Your task to perform on an android device: manage bookmarks in the chrome app Image 0: 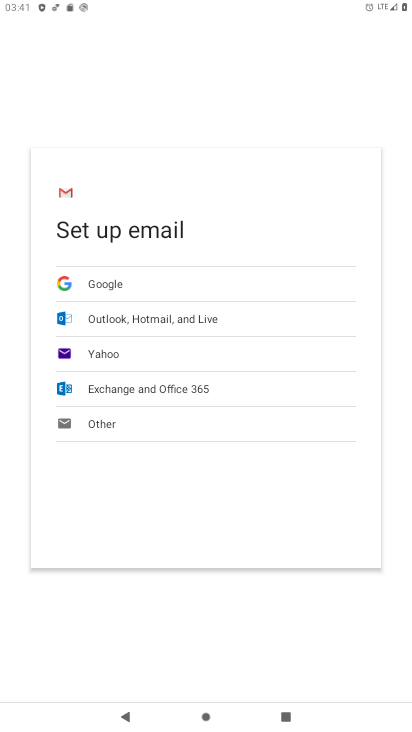
Step 0: press home button
Your task to perform on an android device: manage bookmarks in the chrome app Image 1: 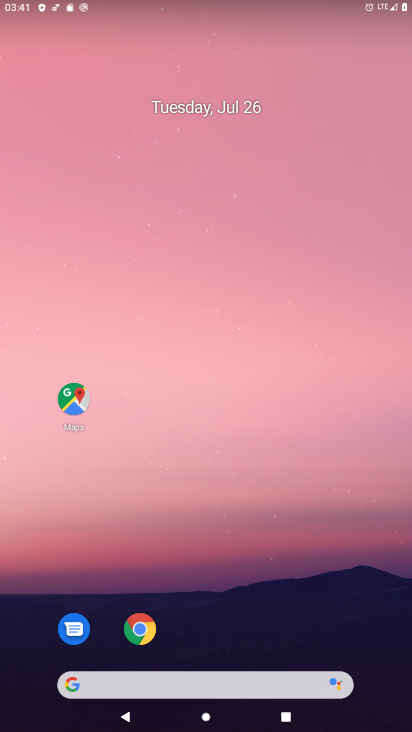
Step 1: drag from (306, 588) to (349, 154)
Your task to perform on an android device: manage bookmarks in the chrome app Image 2: 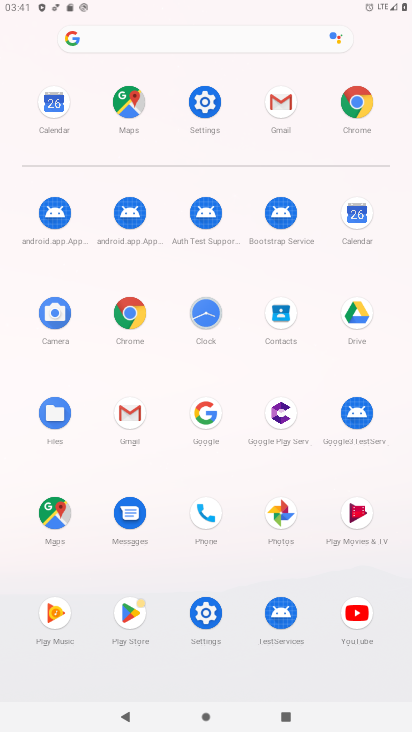
Step 2: click (127, 310)
Your task to perform on an android device: manage bookmarks in the chrome app Image 3: 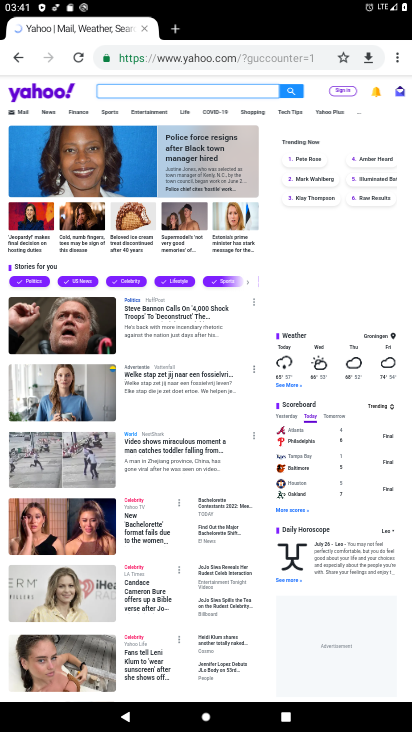
Step 3: click (396, 59)
Your task to perform on an android device: manage bookmarks in the chrome app Image 4: 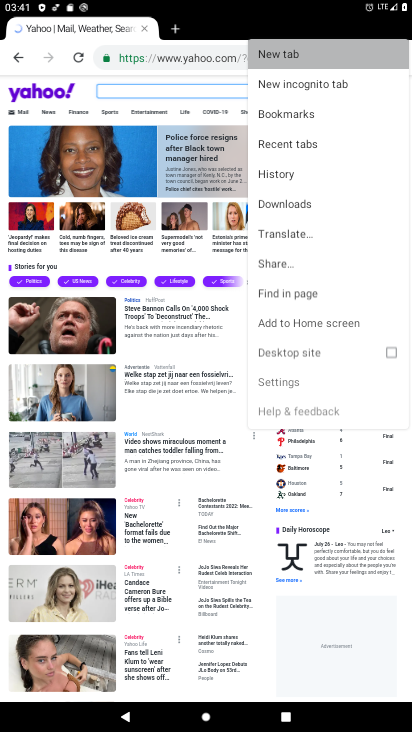
Step 4: click (396, 59)
Your task to perform on an android device: manage bookmarks in the chrome app Image 5: 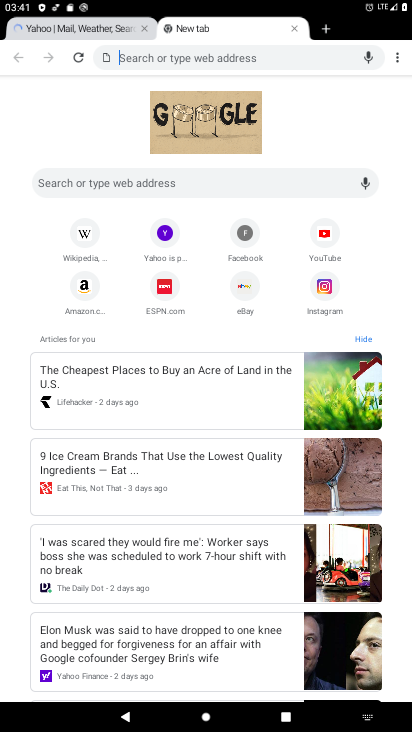
Step 5: drag from (400, 57) to (312, 116)
Your task to perform on an android device: manage bookmarks in the chrome app Image 6: 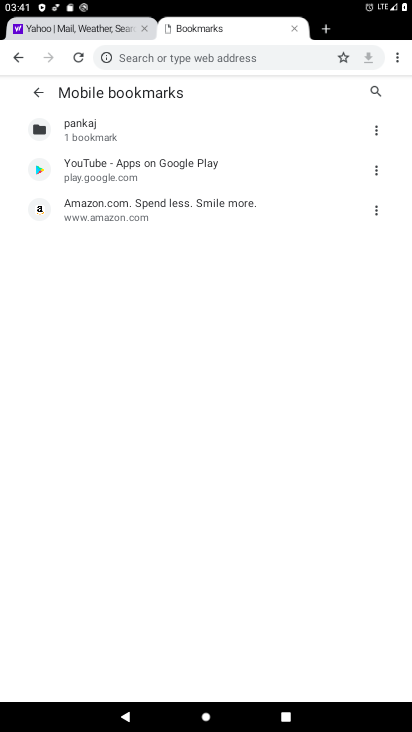
Step 6: click (375, 119)
Your task to perform on an android device: manage bookmarks in the chrome app Image 7: 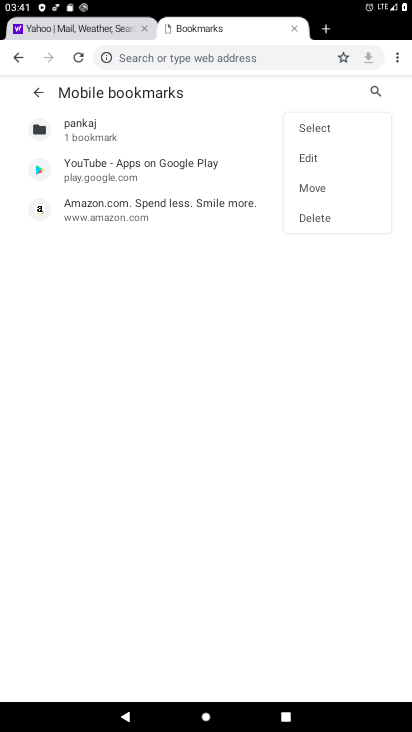
Step 7: click (301, 154)
Your task to perform on an android device: manage bookmarks in the chrome app Image 8: 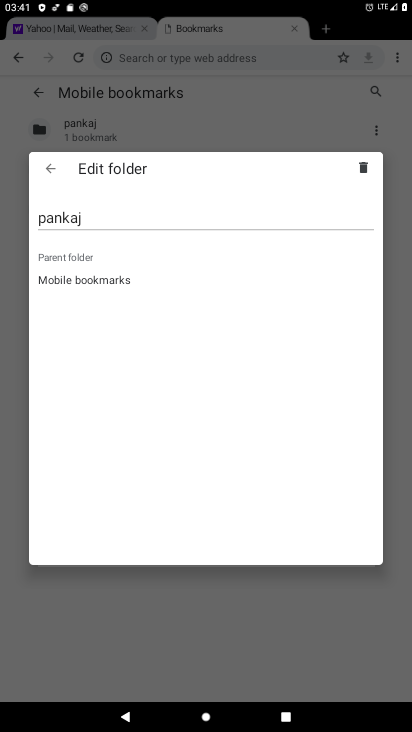
Step 8: click (237, 212)
Your task to perform on an android device: manage bookmarks in the chrome app Image 9: 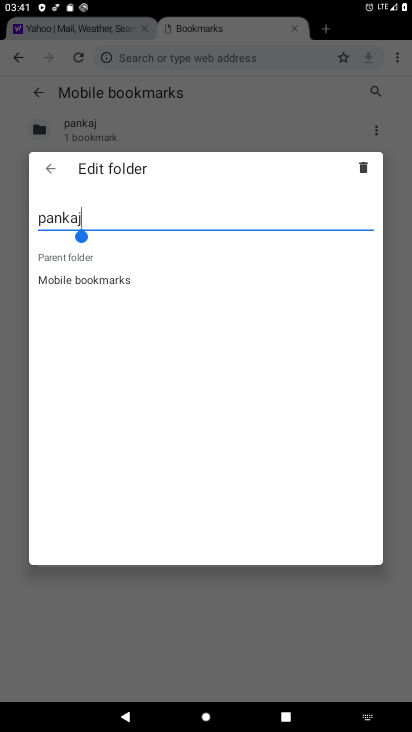
Step 9: click (207, 219)
Your task to perform on an android device: manage bookmarks in the chrome app Image 10: 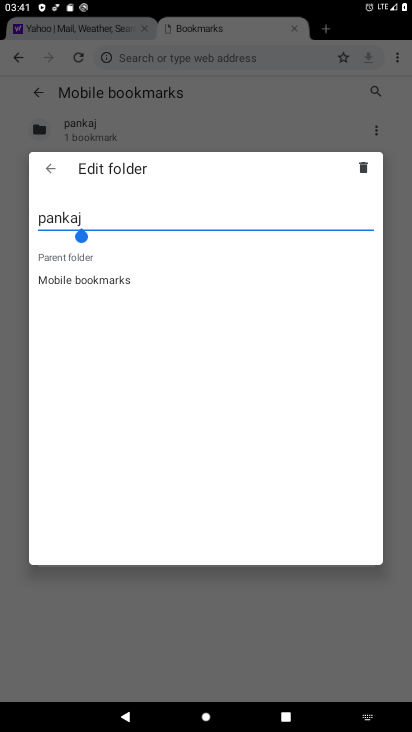
Step 10: click (48, 215)
Your task to perform on an android device: manage bookmarks in the chrome app Image 11: 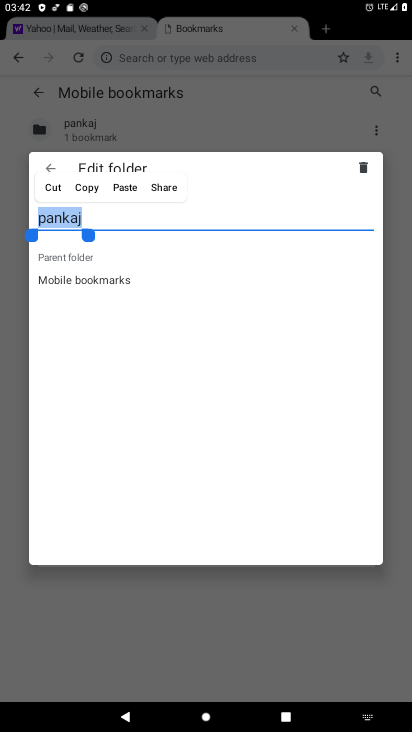
Step 11: type "bbbbb"
Your task to perform on an android device: manage bookmarks in the chrome app Image 12: 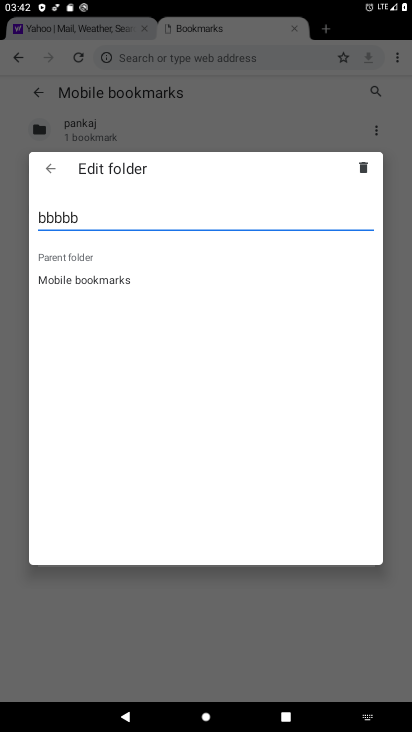
Step 12: click (88, 280)
Your task to perform on an android device: manage bookmarks in the chrome app Image 13: 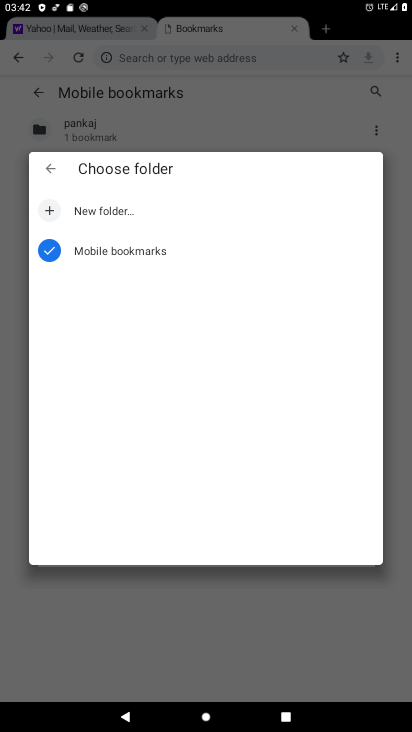
Step 13: click (297, 131)
Your task to perform on an android device: manage bookmarks in the chrome app Image 14: 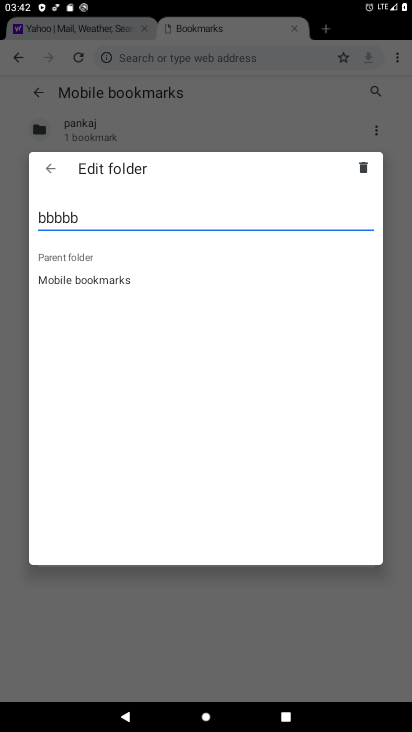
Step 14: click (173, 617)
Your task to perform on an android device: manage bookmarks in the chrome app Image 15: 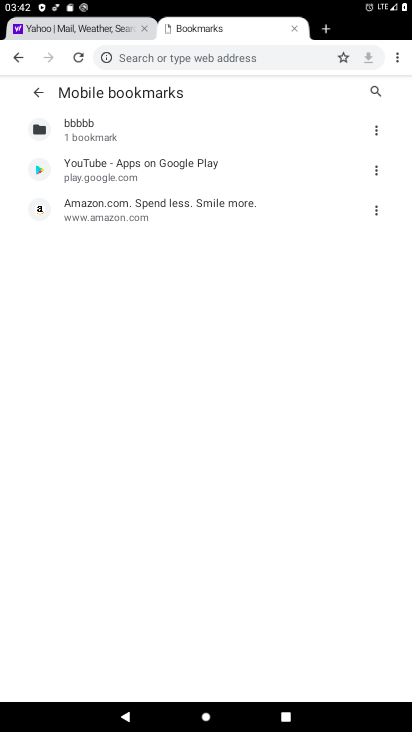
Step 15: task complete